Your task to perform on an android device: Open the calendar and show me this week's events Image 0: 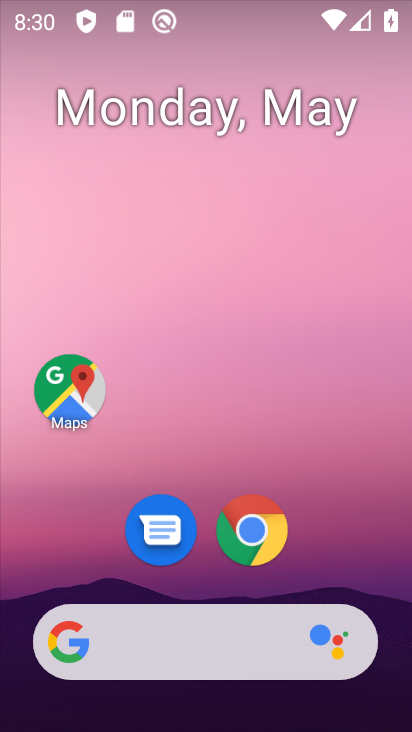
Step 0: click (183, 531)
Your task to perform on an android device: Open the calendar and show me this week's events Image 1: 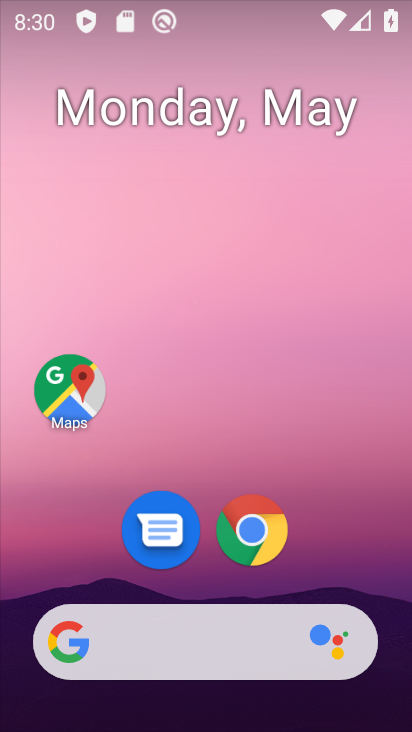
Step 1: drag from (167, 627) to (265, 224)
Your task to perform on an android device: Open the calendar and show me this week's events Image 2: 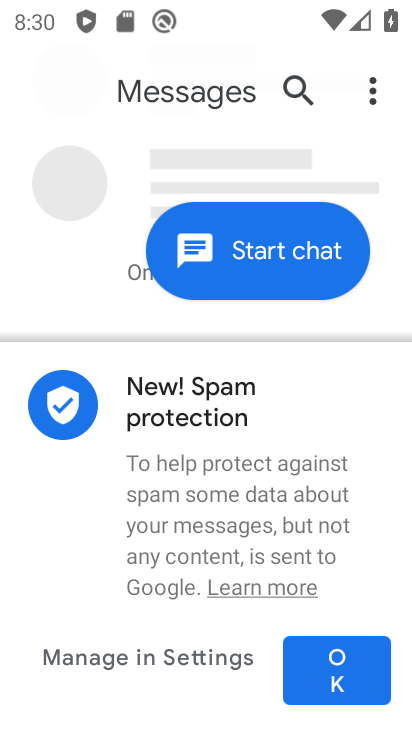
Step 2: press home button
Your task to perform on an android device: Open the calendar and show me this week's events Image 3: 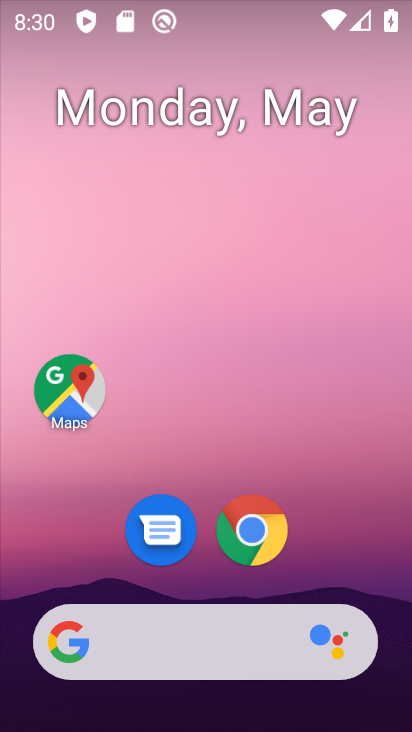
Step 3: drag from (153, 657) to (234, 437)
Your task to perform on an android device: Open the calendar and show me this week's events Image 4: 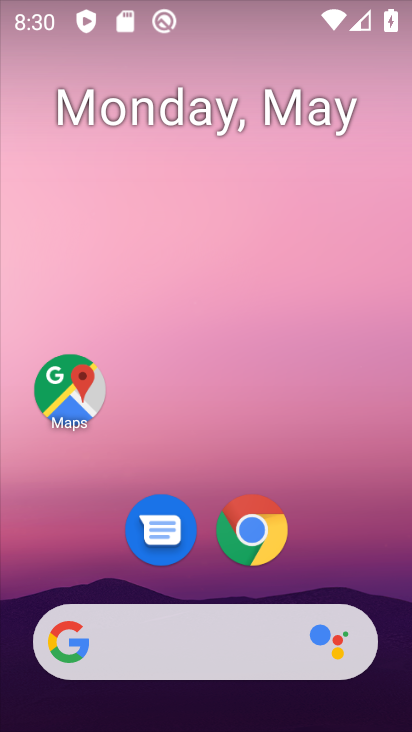
Step 4: drag from (169, 634) to (224, 341)
Your task to perform on an android device: Open the calendar and show me this week's events Image 5: 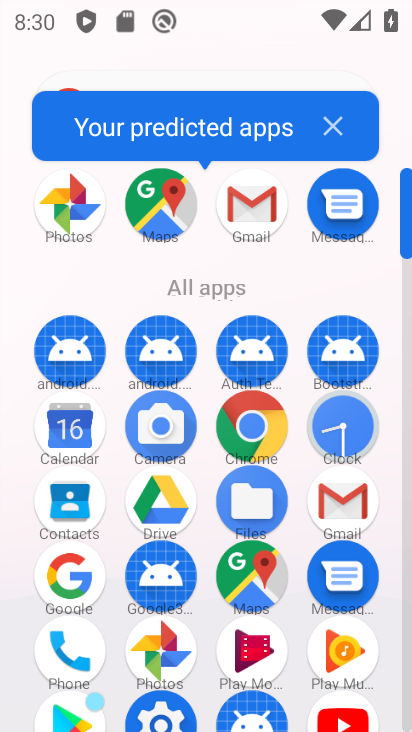
Step 5: click (72, 449)
Your task to perform on an android device: Open the calendar and show me this week's events Image 6: 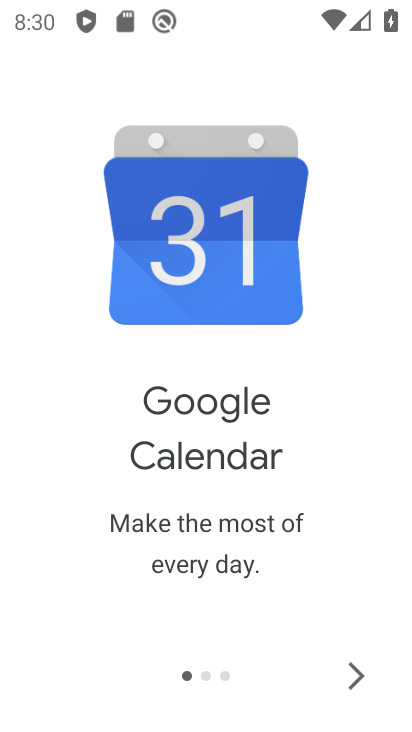
Step 6: click (354, 672)
Your task to perform on an android device: Open the calendar and show me this week's events Image 7: 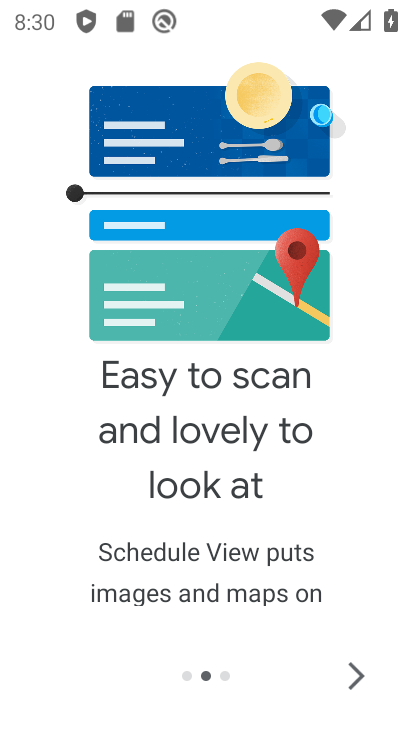
Step 7: click (354, 672)
Your task to perform on an android device: Open the calendar and show me this week's events Image 8: 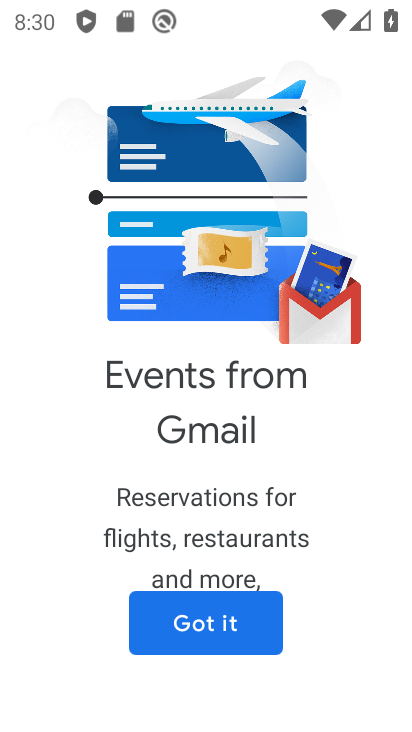
Step 8: click (354, 672)
Your task to perform on an android device: Open the calendar and show me this week's events Image 9: 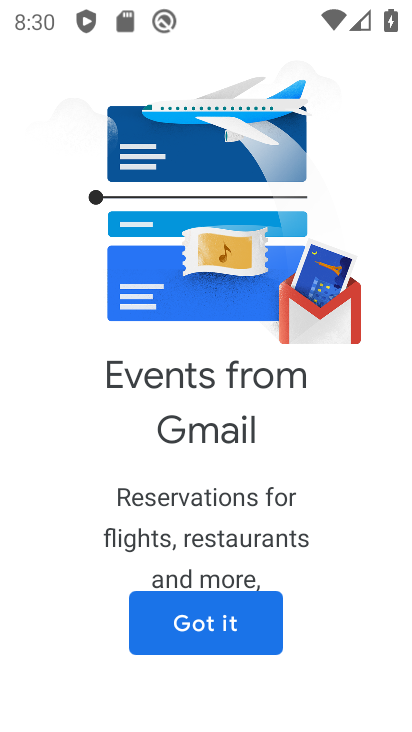
Step 9: click (183, 600)
Your task to perform on an android device: Open the calendar and show me this week's events Image 10: 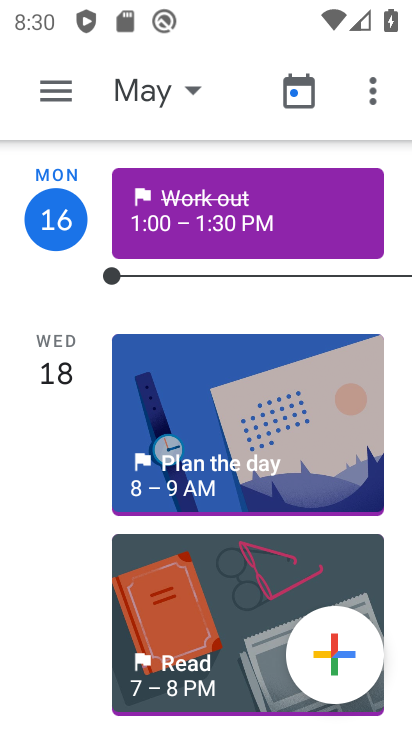
Step 10: click (67, 94)
Your task to perform on an android device: Open the calendar and show me this week's events Image 11: 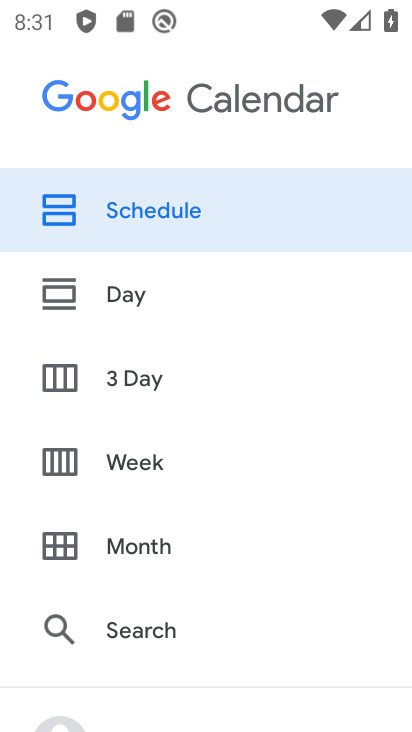
Step 11: click (122, 457)
Your task to perform on an android device: Open the calendar and show me this week's events Image 12: 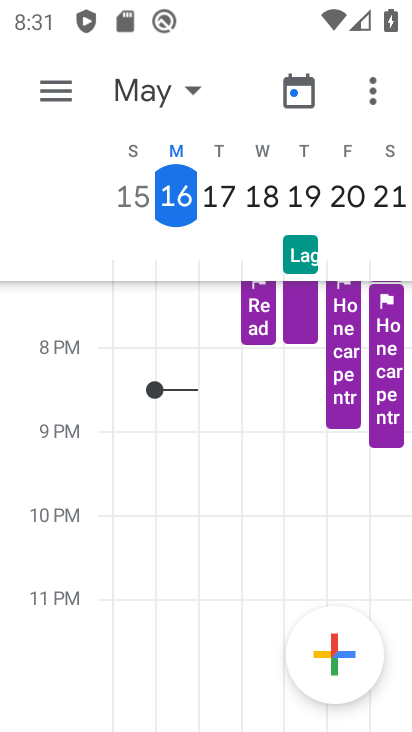
Step 12: task complete